Your task to perform on an android device: See recent photos Image 0: 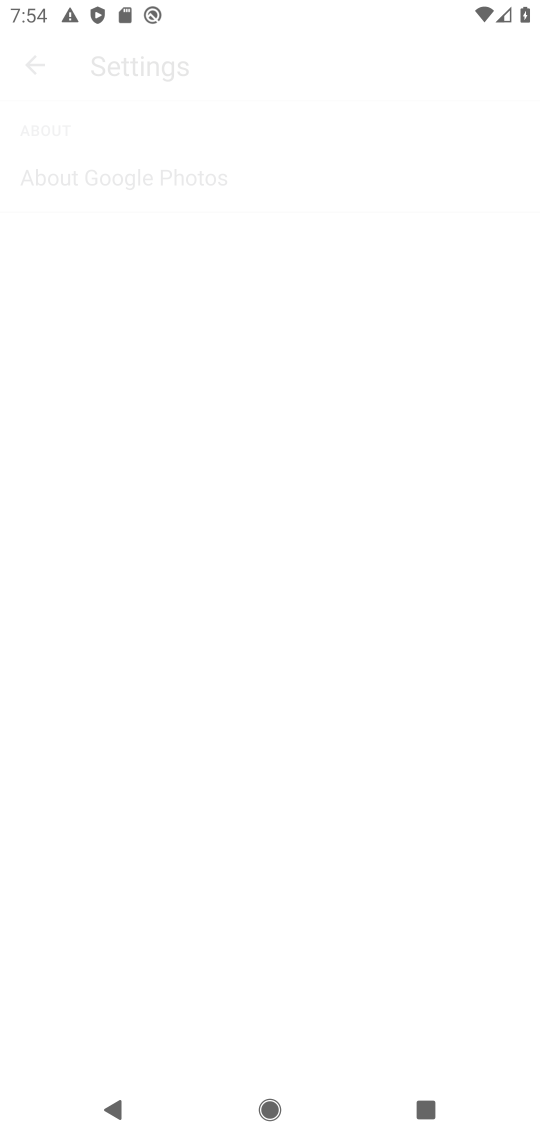
Step 0: drag from (300, 13) to (258, 921)
Your task to perform on an android device: See recent photos Image 1: 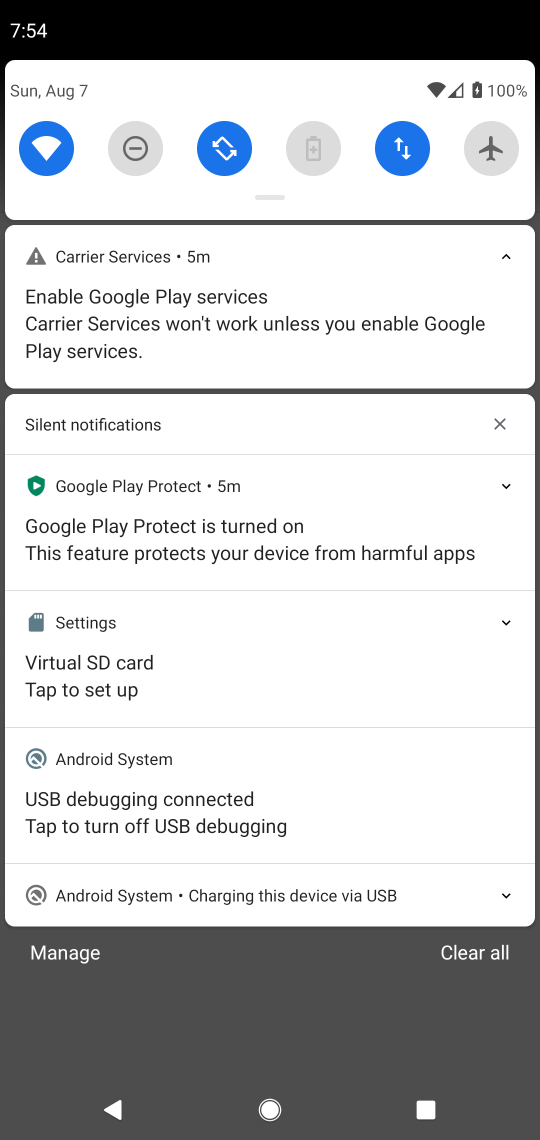
Step 1: click (46, 143)
Your task to perform on an android device: See recent photos Image 2: 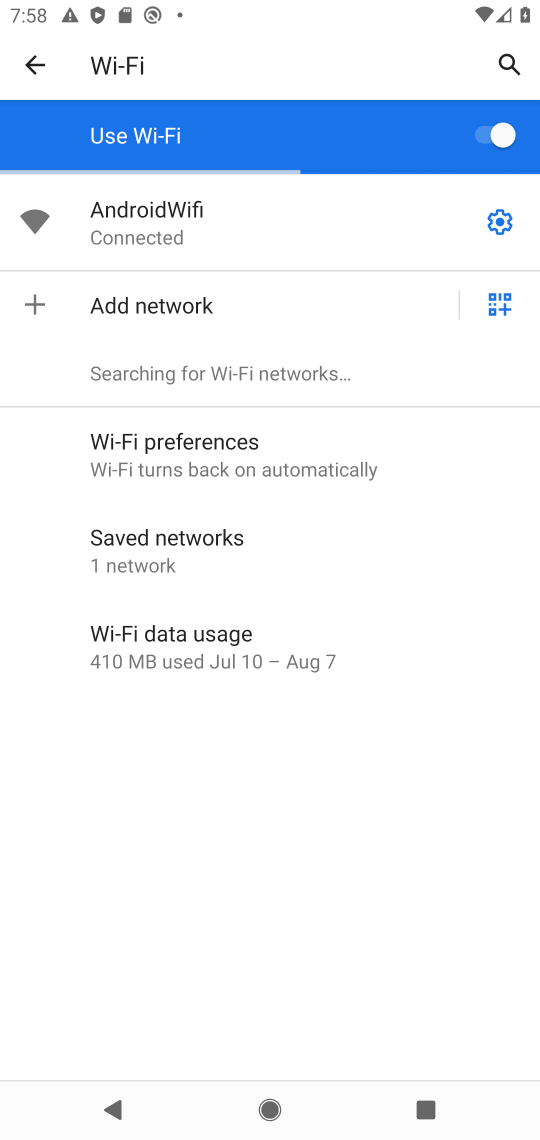
Step 2: task complete